Your task to perform on an android device: What's the weather? Image 0: 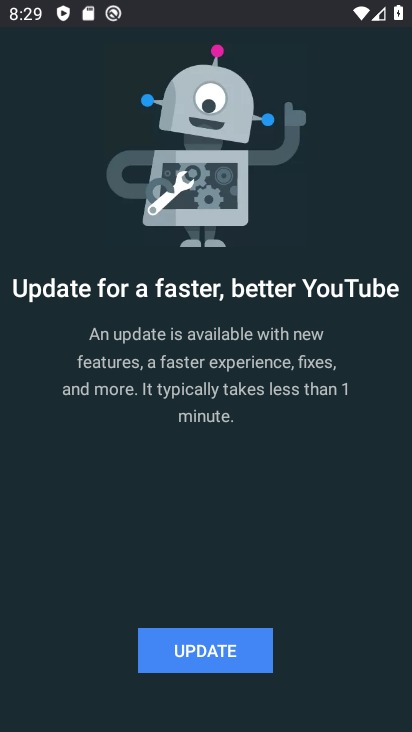
Step 0: press home button
Your task to perform on an android device: What's the weather? Image 1: 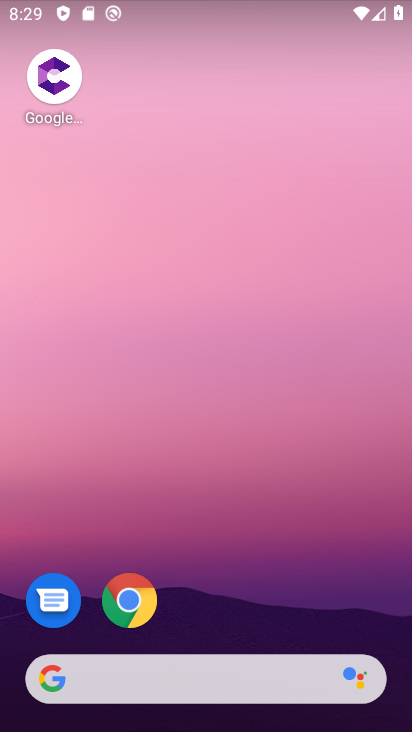
Step 1: click (151, 683)
Your task to perform on an android device: What's the weather? Image 2: 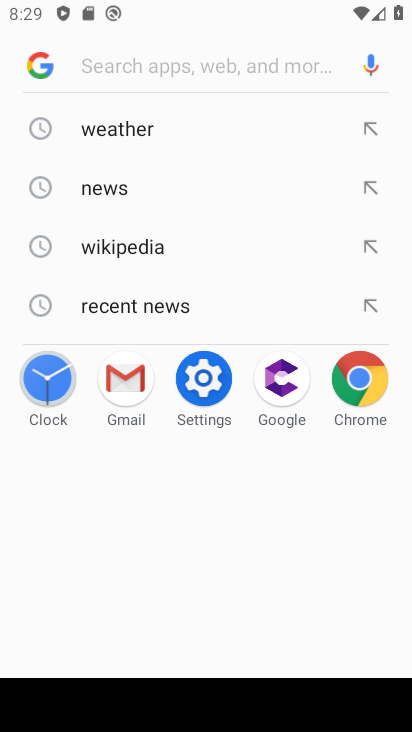
Step 2: click (156, 143)
Your task to perform on an android device: What's the weather? Image 3: 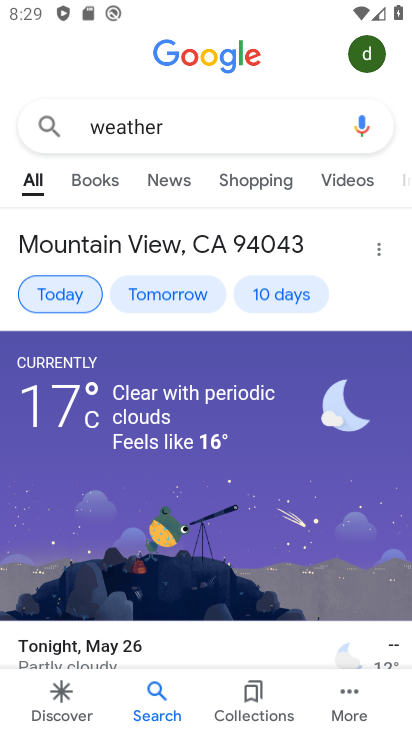
Step 3: task complete